Your task to perform on an android device: turn off wifi Image 0: 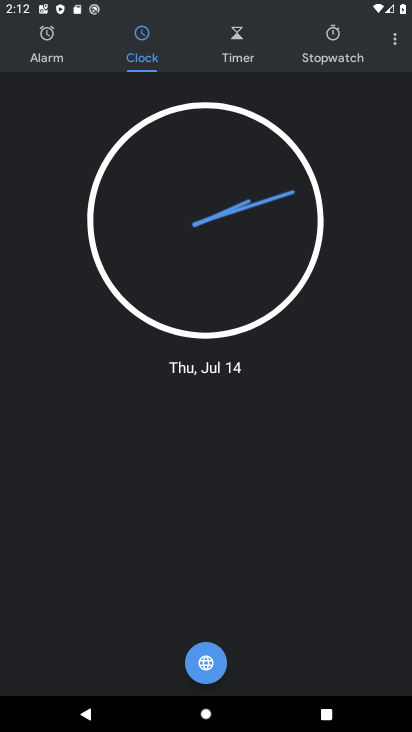
Step 0: press home button
Your task to perform on an android device: turn off wifi Image 1: 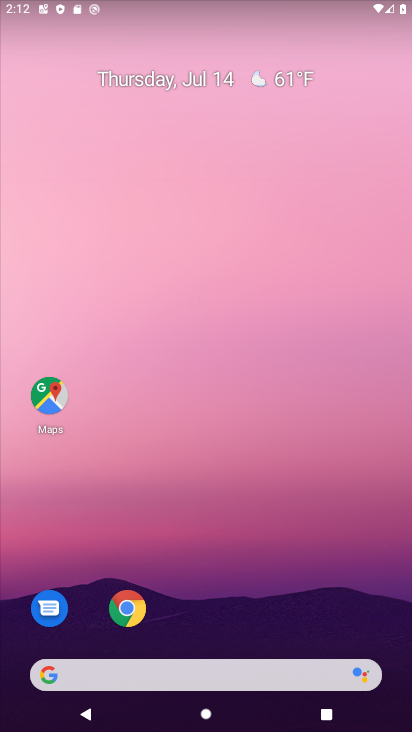
Step 1: drag from (210, 661) to (268, 134)
Your task to perform on an android device: turn off wifi Image 2: 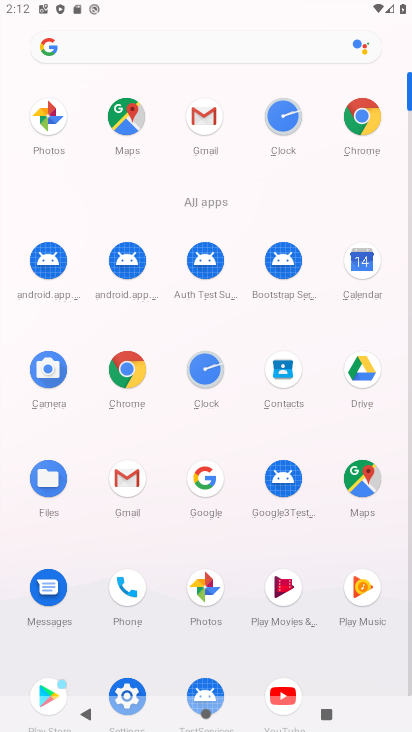
Step 2: click (120, 687)
Your task to perform on an android device: turn off wifi Image 3: 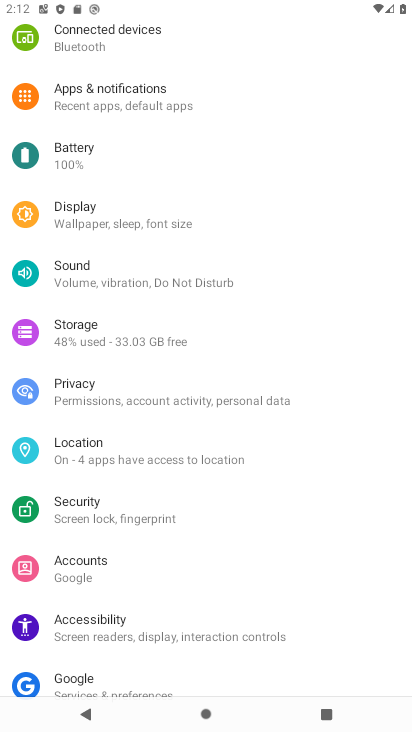
Step 3: drag from (137, 47) to (136, 496)
Your task to perform on an android device: turn off wifi Image 4: 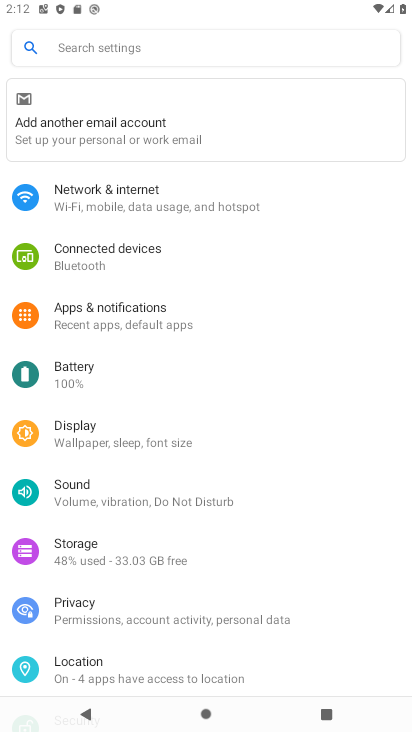
Step 4: click (135, 195)
Your task to perform on an android device: turn off wifi Image 5: 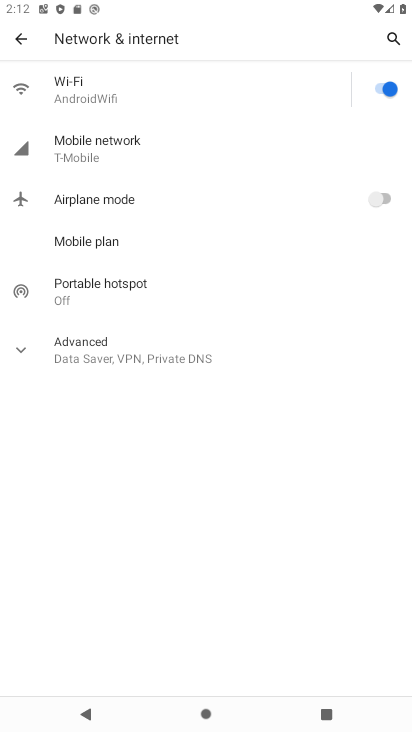
Step 5: click (387, 86)
Your task to perform on an android device: turn off wifi Image 6: 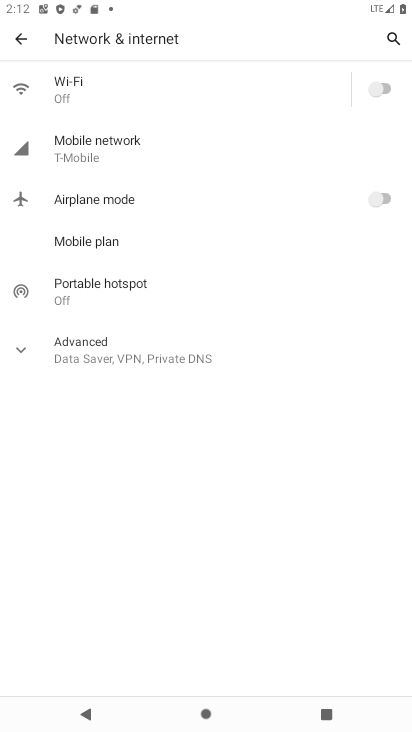
Step 6: task complete